Your task to perform on an android device: Show me popular games on the Play Store Image 0: 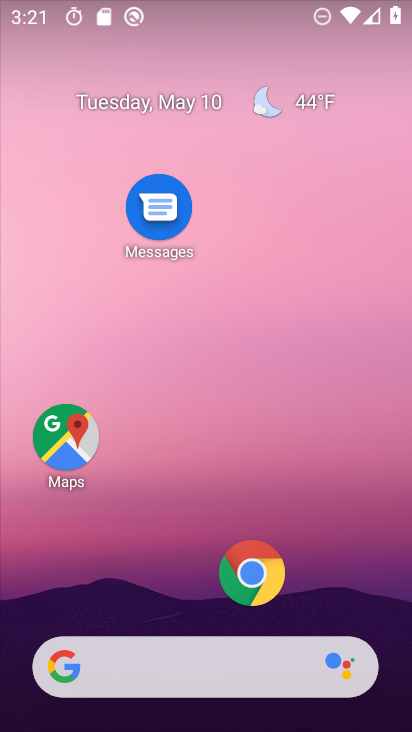
Step 0: drag from (193, 605) to (277, 243)
Your task to perform on an android device: Show me popular games on the Play Store Image 1: 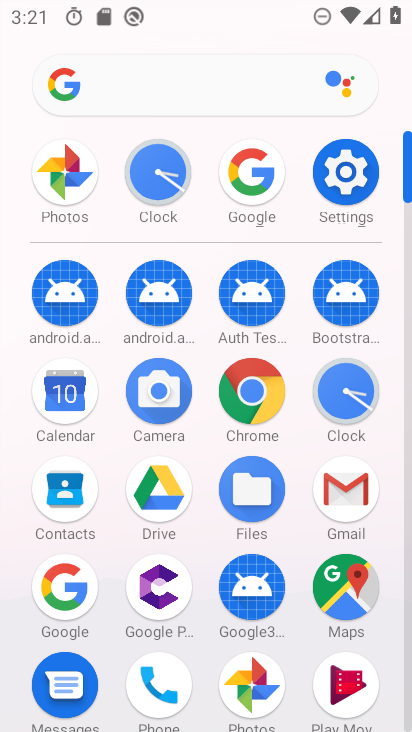
Step 1: drag from (196, 556) to (260, 259)
Your task to perform on an android device: Show me popular games on the Play Store Image 2: 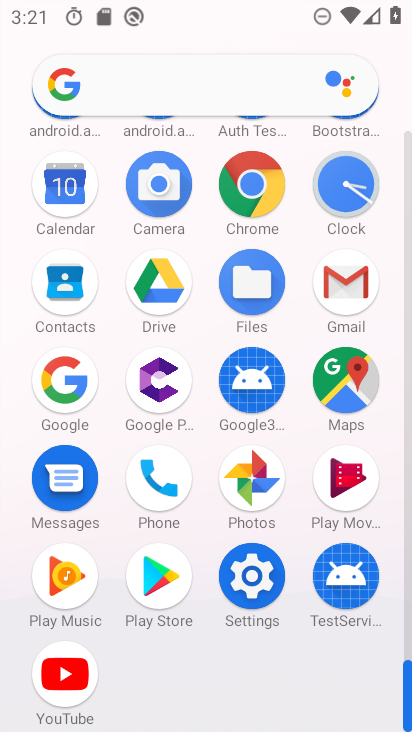
Step 2: click (168, 567)
Your task to perform on an android device: Show me popular games on the Play Store Image 3: 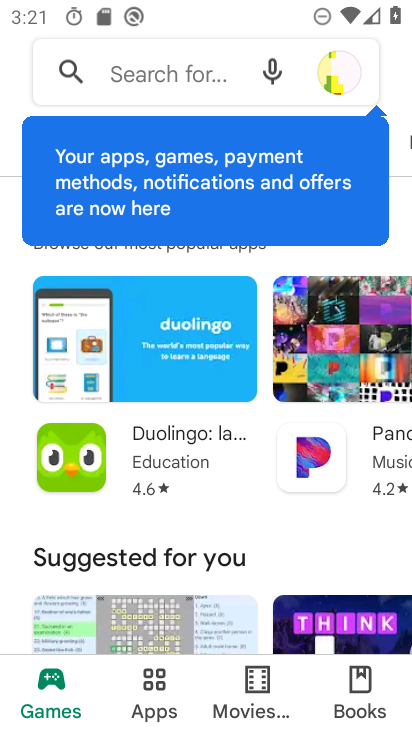
Step 3: click (290, 176)
Your task to perform on an android device: Show me popular games on the Play Store Image 4: 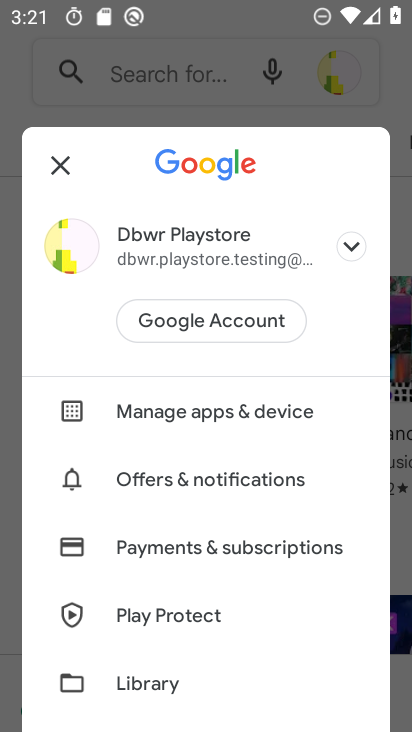
Step 4: click (66, 166)
Your task to perform on an android device: Show me popular games on the Play Store Image 5: 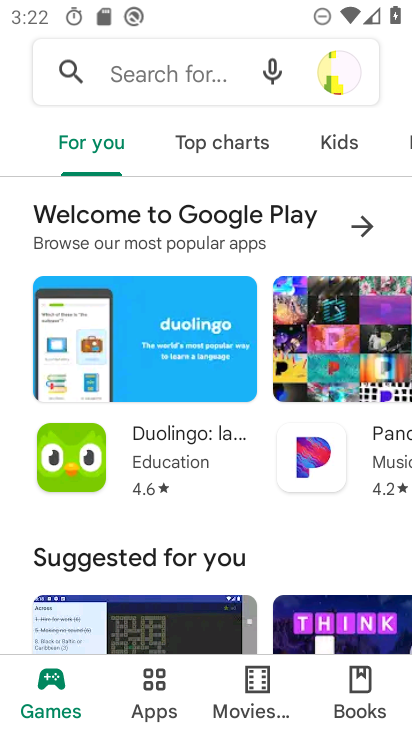
Step 5: click (187, 150)
Your task to perform on an android device: Show me popular games on the Play Store Image 6: 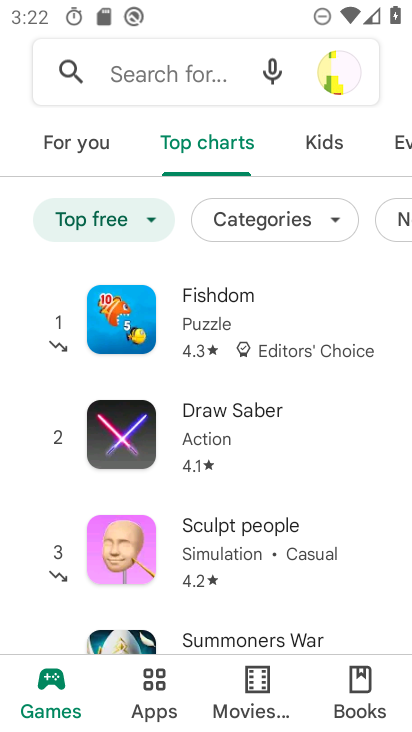
Step 6: click (340, 145)
Your task to perform on an android device: Show me popular games on the Play Store Image 7: 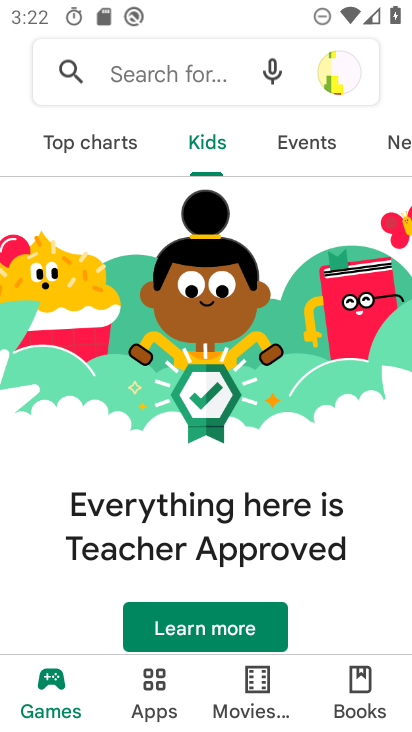
Step 7: click (232, 145)
Your task to perform on an android device: Show me popular games on the Play Store Image 8: 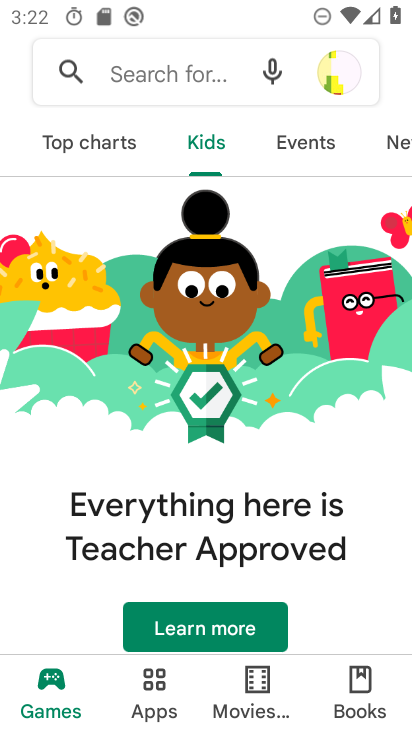
Step 8: click (62, 156)
Your task to perform on an android device: Show me popular games on the Play Store Image 9: 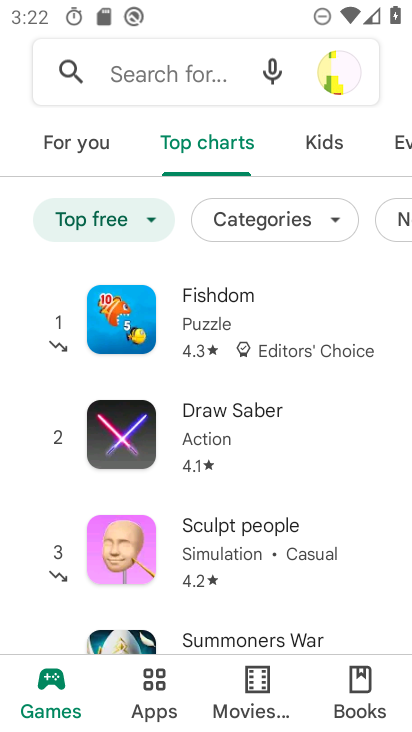
Step 9: task complete